Your task to perform on an android device: check out phone information Image 0: 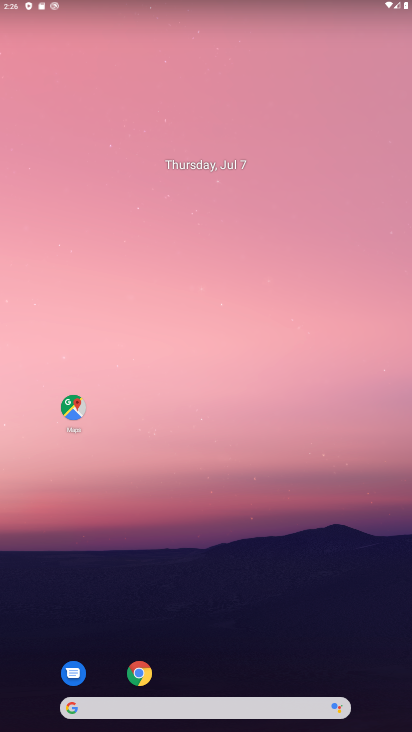
Step 0: press home button
Your task to perform on an android device: check out phone information Image 1: 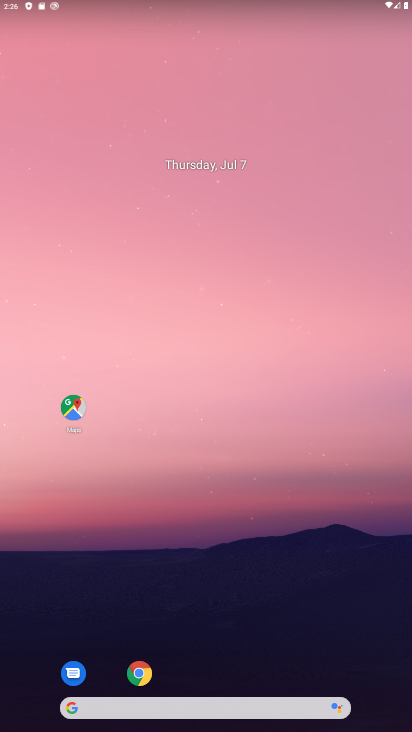
Step 1: drag from (317, 644) to (408, 1)
Your task to perform on an android device: check out phone information Image 2: 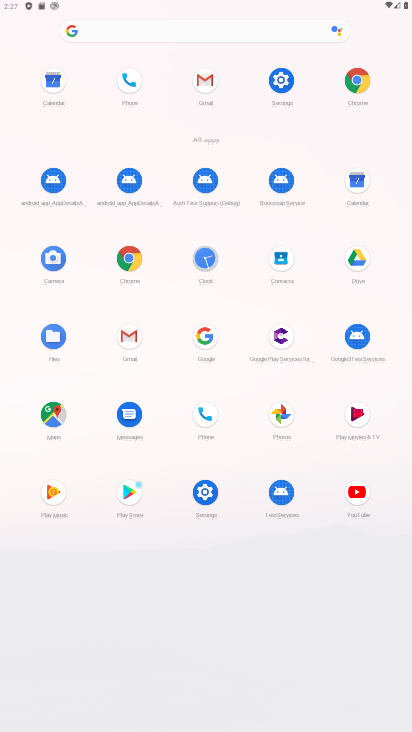
Step 2: click (120, 69)
Your task to perform on an android device: check out phone information Image 3: 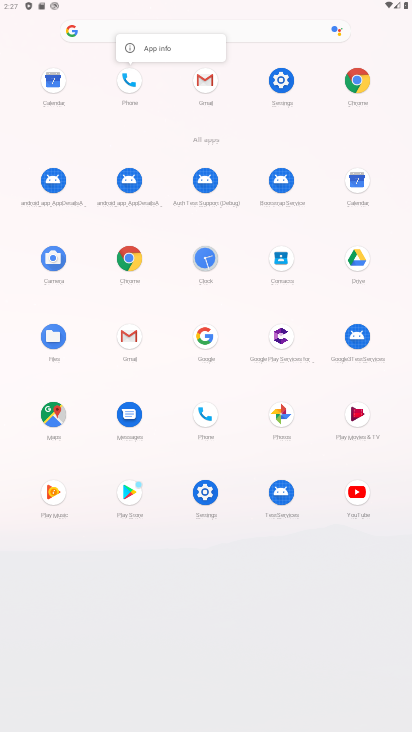
Step 3: click (171, 50)
Your task to perform on an android device: check out phone information Image 4: 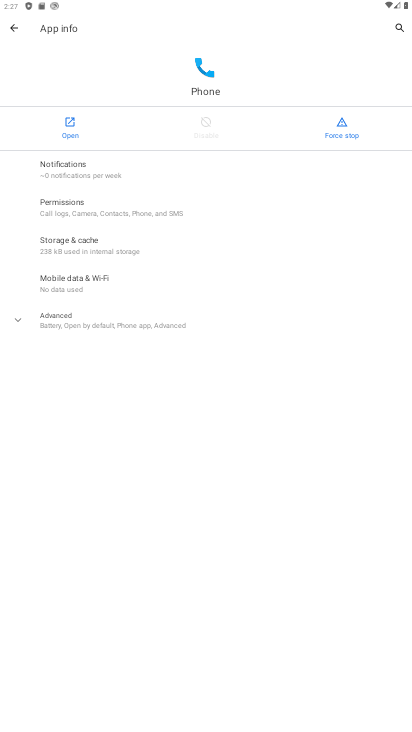
Step 4: task complete